Your task to perform on an android device: See recent photos Image 0: 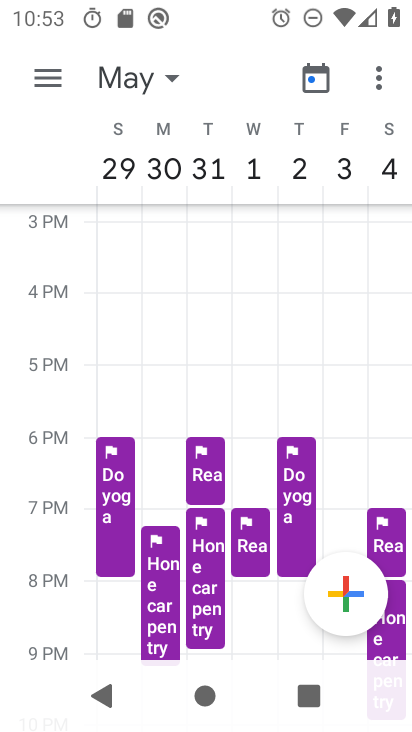
Step 0: press home button
Your task to perform on an android device: See recent photos Image 1: 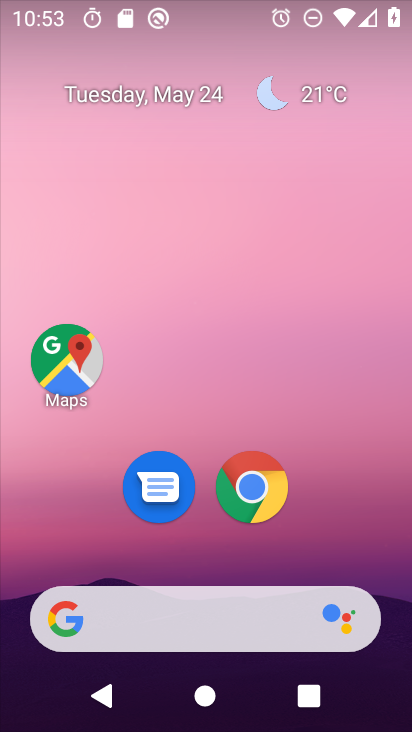
Step 1: drag from (332, 579) to (315, 5)
Your task to perform on an android device: See recent photos Image 2: 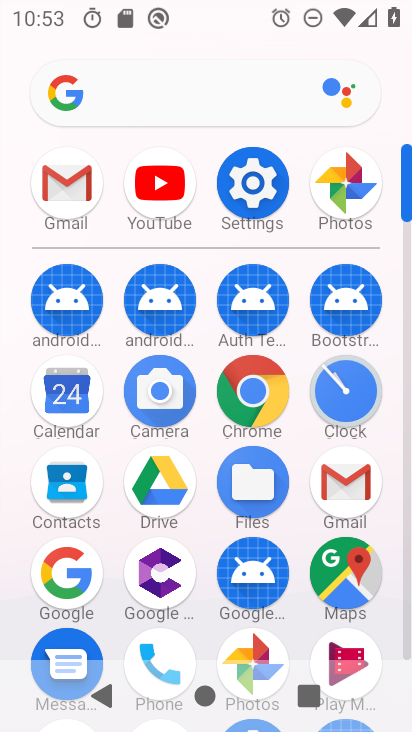
Step 2: click (345, 179)
Your task to perform on an android device: See recent photos Image 3: 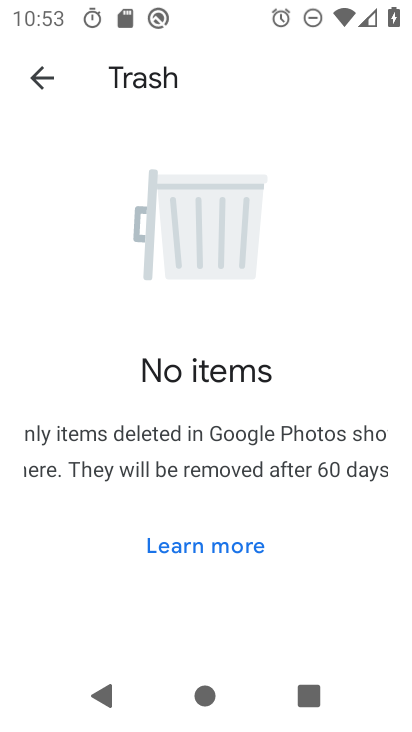
Step 3: click (37, 82)
Your task to perform on an android device: See recent photos Image 4: 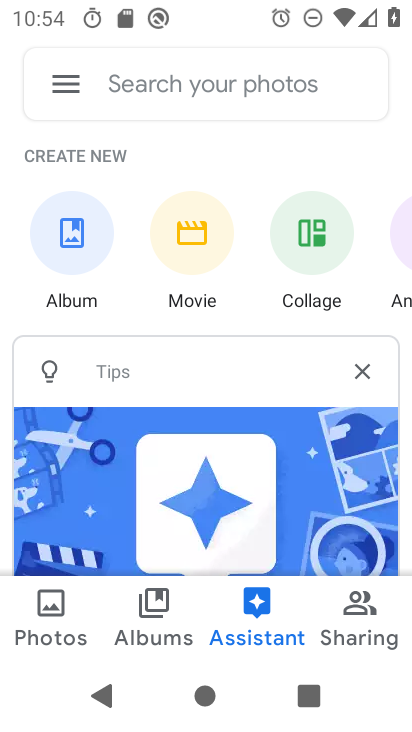
Step 4: click (51, 617)
Your task to perform on an android device: See recent photos Image 5: 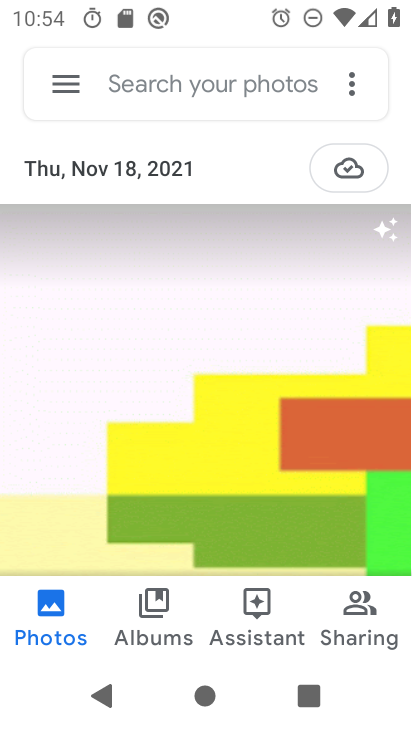
Step 5: task complete